Your task to perform on an android device: change the clock display to show seconds Image 0: 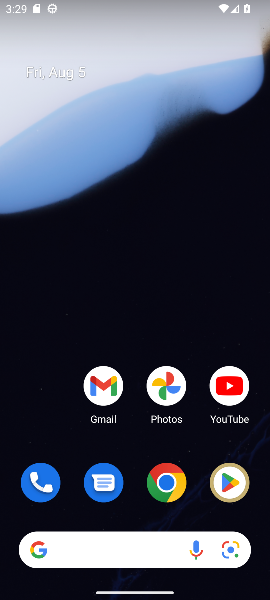
Step 0: press home button
Your task to perform on an android device: change the clock display to show seconds Image 1: 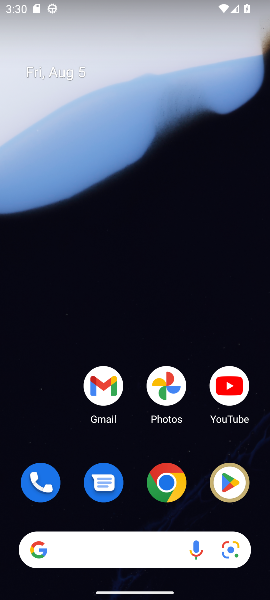
Step 1: drag from (131, 510) to (215, 10)
Your task to perform on an android device: change the clock display to show seconds Image 2: 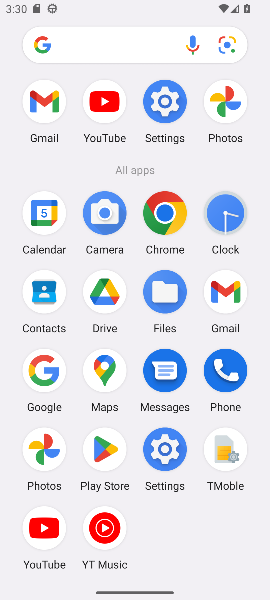
Step 2: click (223, 208)
Your task to perform on an android device: change the clock display to show seconds Image 3: 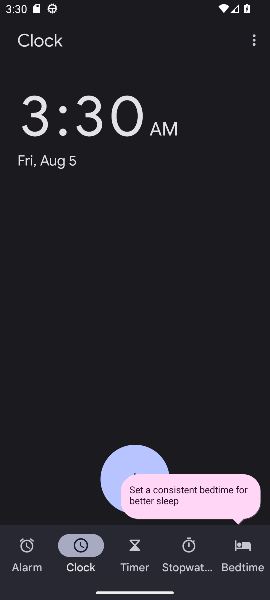
Step 3: click (255, 39)
Your task to perform on an android device: change the clock display to show seconds Image 4: 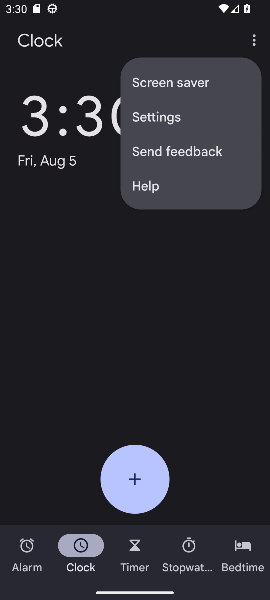
Step 4: click (187, 122)
Your task to perform on an android device: change the clock display to show seconds Image 5: 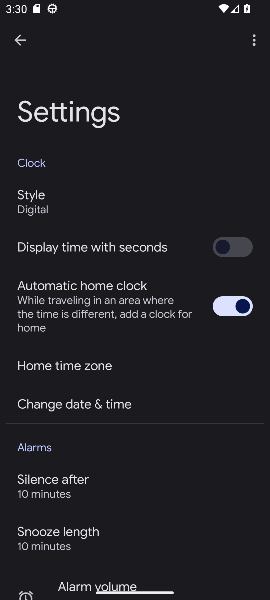
Step 5: click (227, 243)
Your task to perform on an android device: change the clock display to show seconds Image 6: 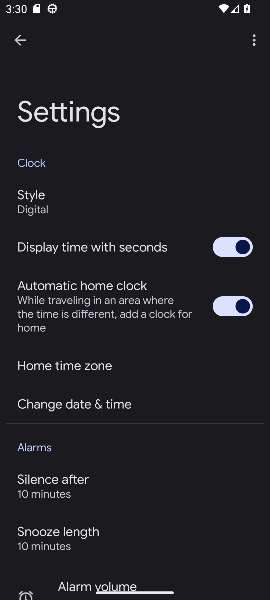
Step 6: task complete